Your task to perform on an android device: change your default location settings in chrome Image 0: 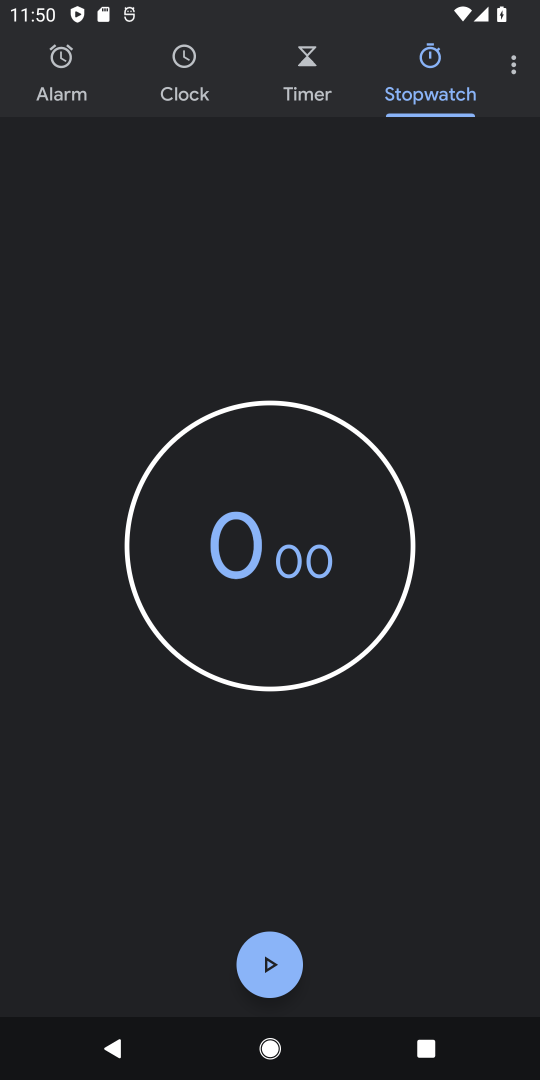
Step 0: press home button
Your task to perform on an android device: change your default location settings in chrome Image 1: 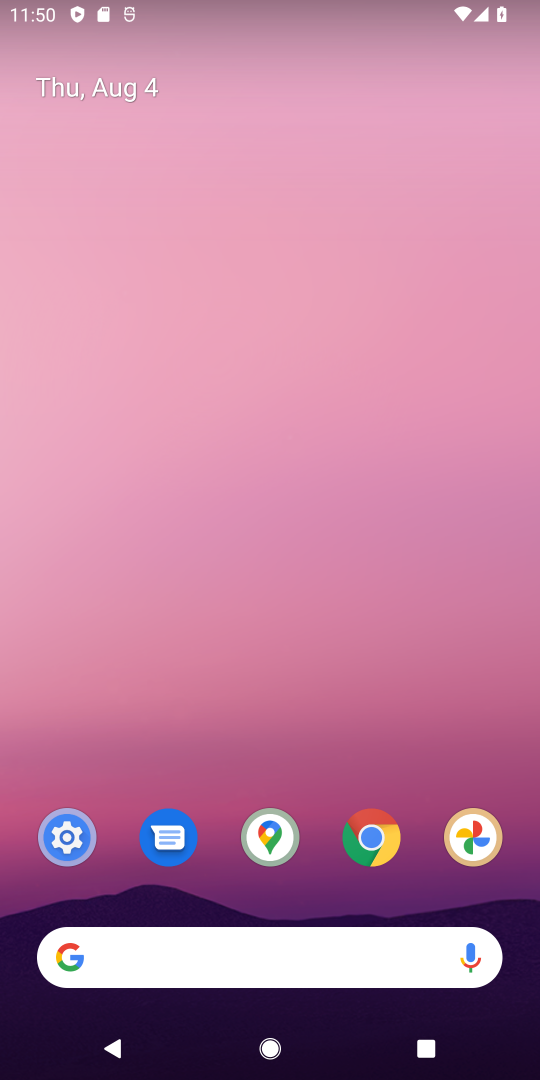
Step 1: click (373, 845)
Your task to perform on an android device: change your default location settings in chrome Image 2: 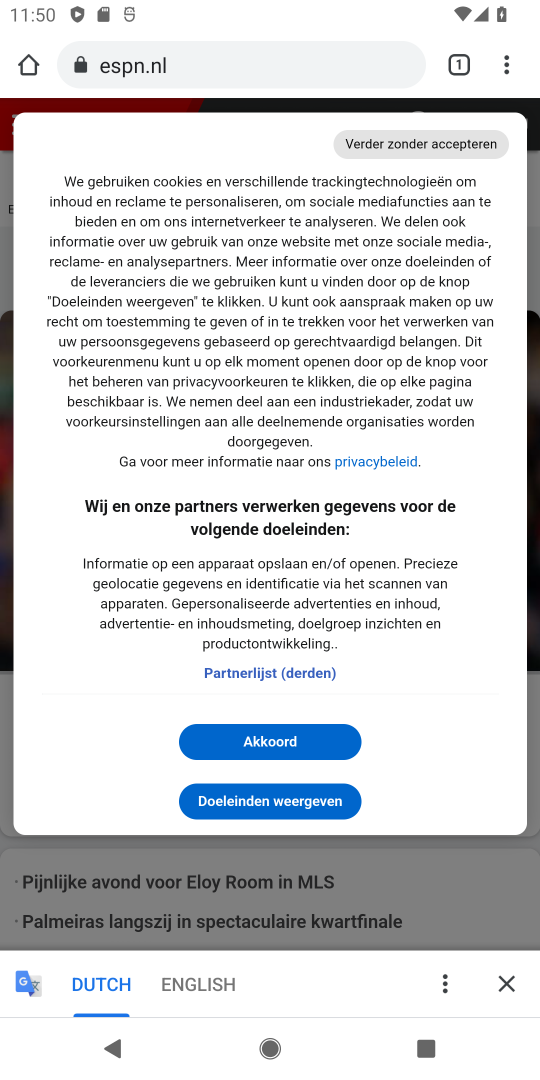
Step 2: click (508, 69)
Your task to perform on an android device: change your default location settings in chrome Image 3: 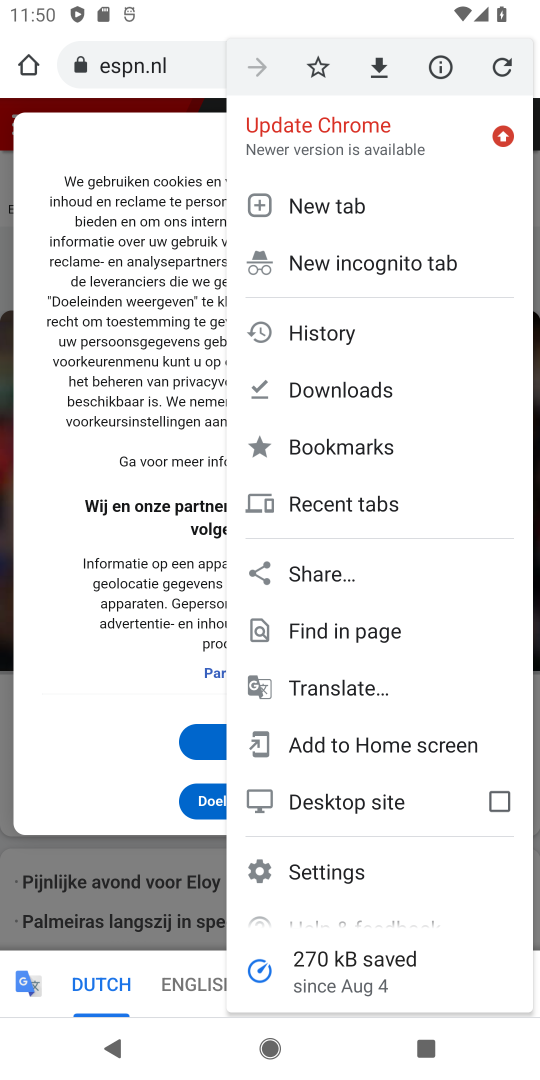
Step 3: click (313, 876)
Your task to perform on an android device: change your default location settings in chrome Image 4: 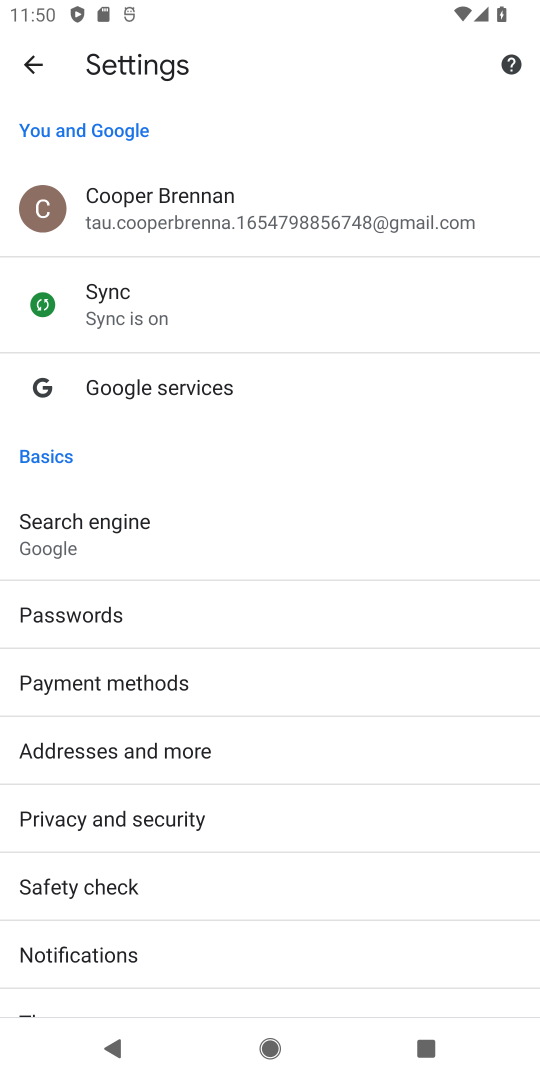
Step 4: drag from (186, 941) to (186, 517)
Your task to perform on an android device: change your default location settings in chrome Image 5: 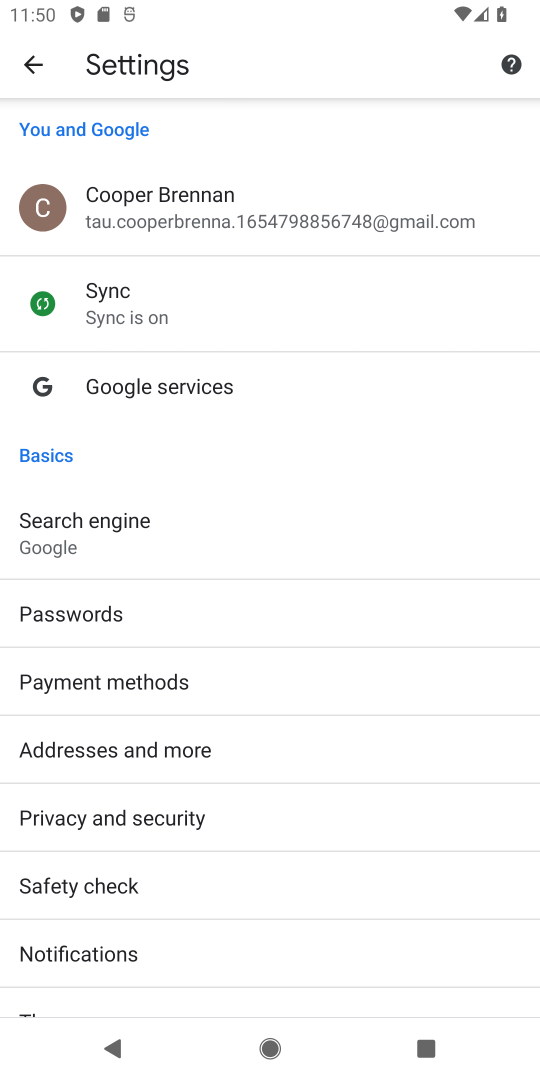
Step 5: drag from (204, 855) to (203, 295)
Your task to perform on an android device: change your default location settings in chrome Image 6: 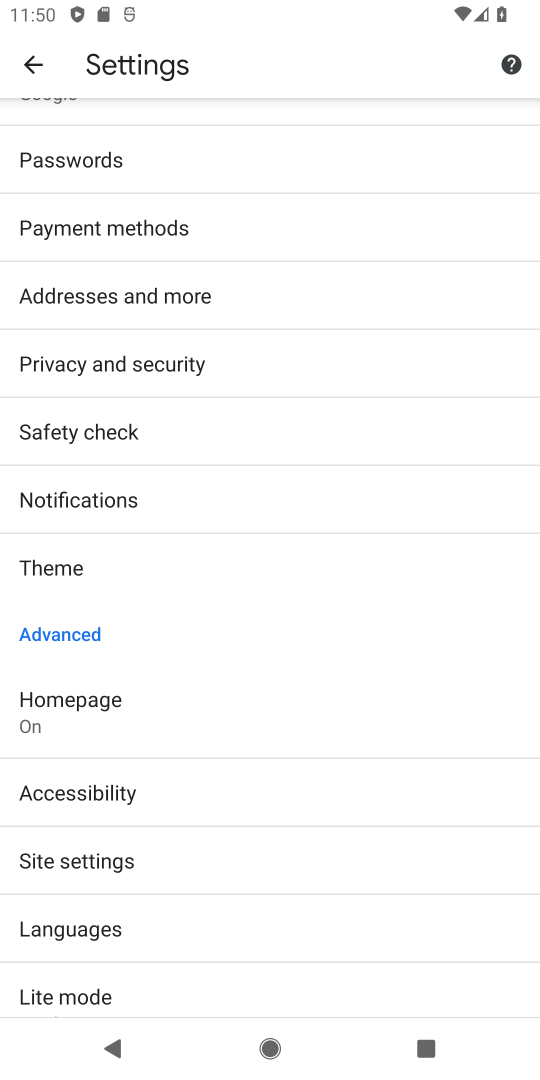
Step 6: click (160, 851)
Your task to perform on an android device: change your default location settings in chrome Image 7: 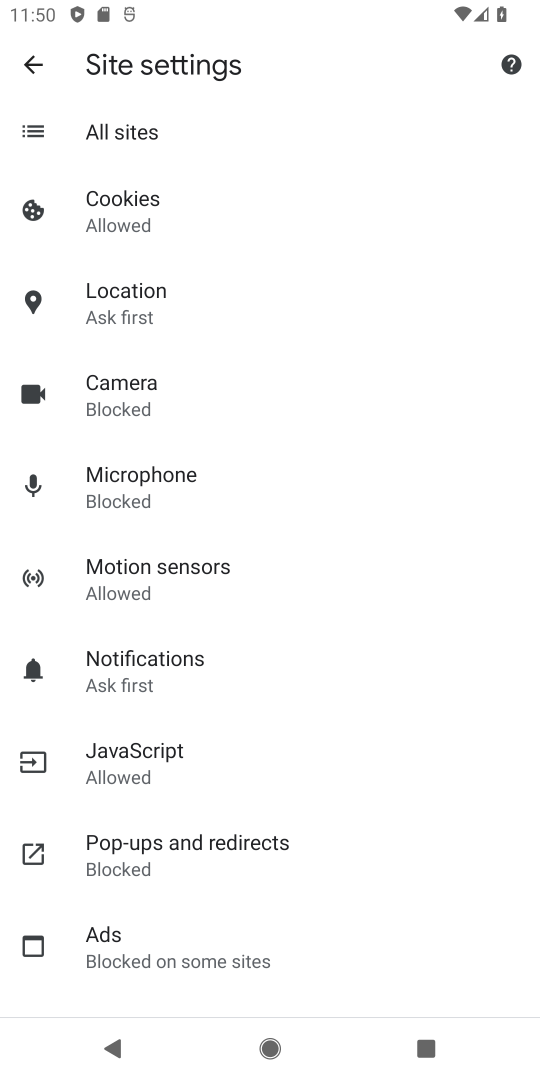
Step 7: click (135, 300)
Your task to perform on an android device: change your default location settings in chrome Image 8: 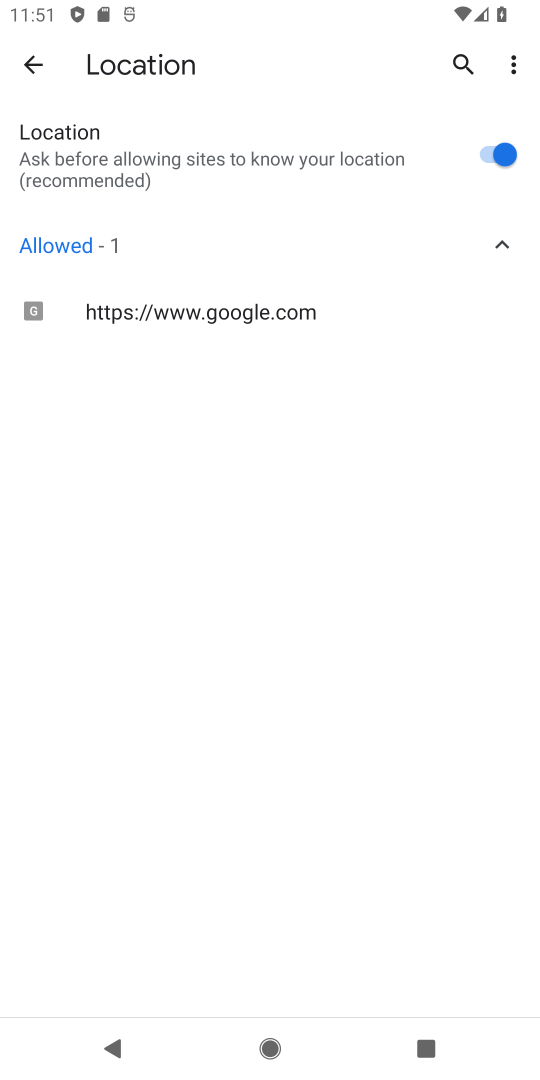
Step 8: click (489, 169)
Your task to perform on an android device: change your default location settings in chrome Image 9: 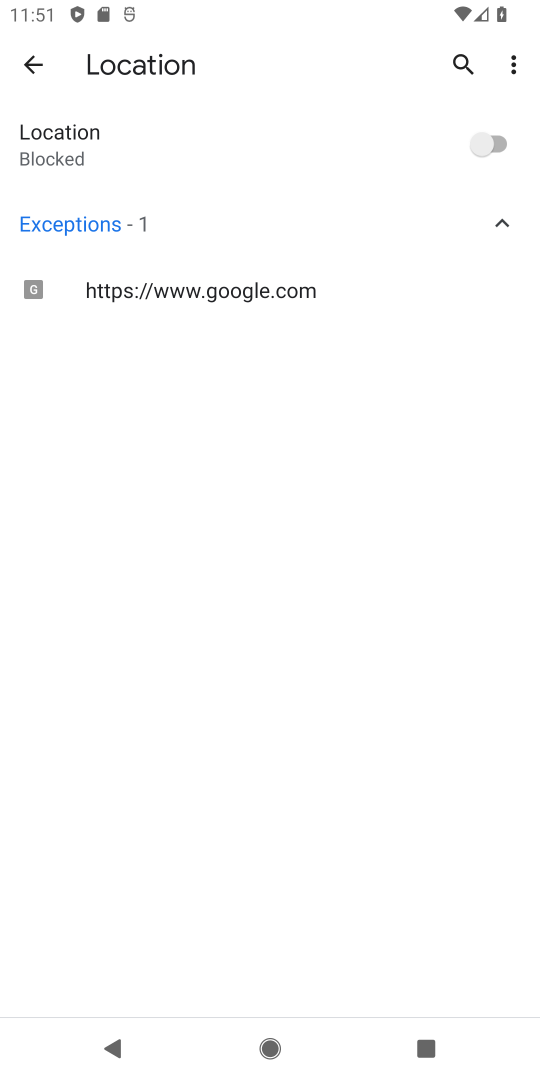
Step 9: task complete